Your task to perform on an android device: Open Google Chrome Image 0: 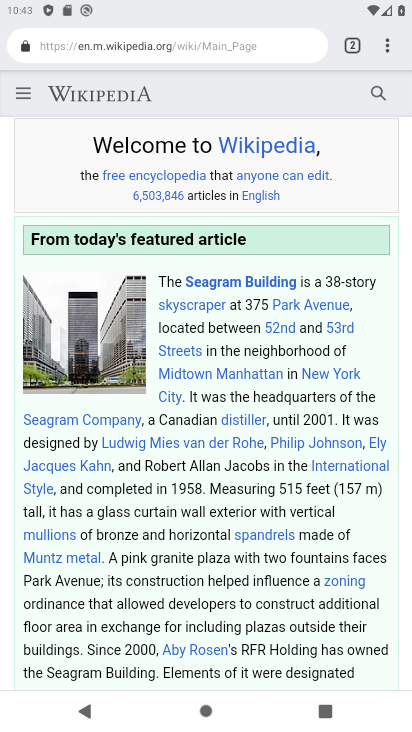
Step 0: press home button
Your task to perform on an android device: Open Google Chrome Image 1: 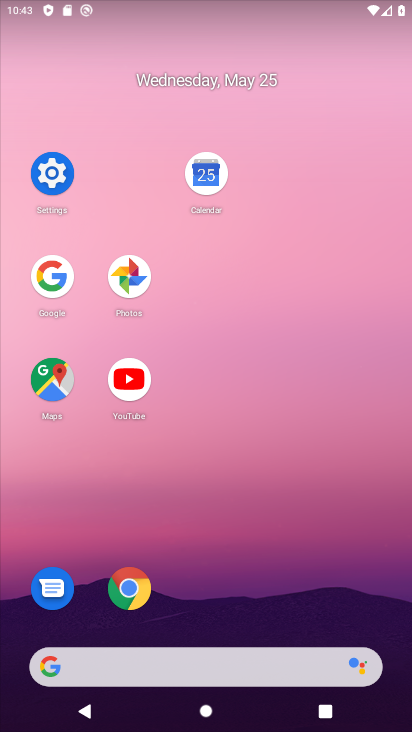
Step 1: click (122, 584)
Your task to perform on an android device: Open Google Chrome Image 2: 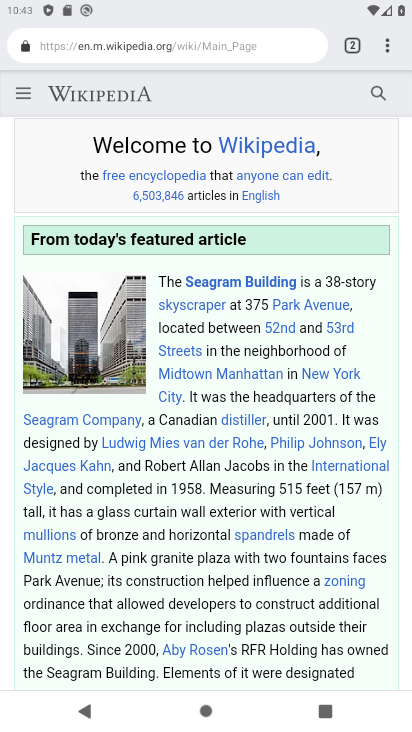
Step 2: task complete